Your task to perform on an android device: set the timer Image 0: 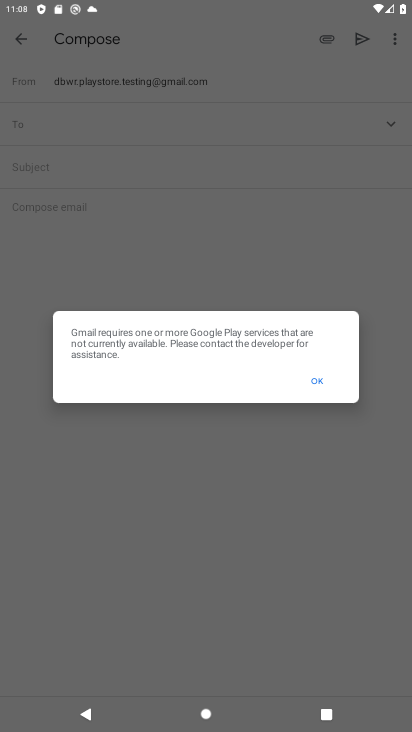
Step 0: press home button
Your task to perform on an android device: set the timer Image 1: 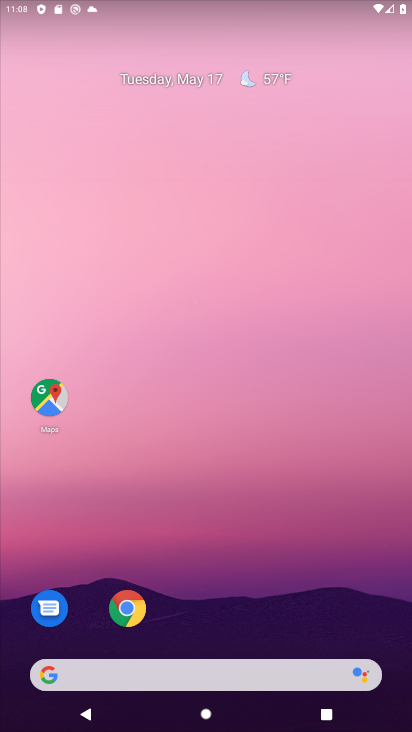
Step 1: drag from (279, 456) to (235, 105)
Your task to perform on an android device: set the timer Image 2: 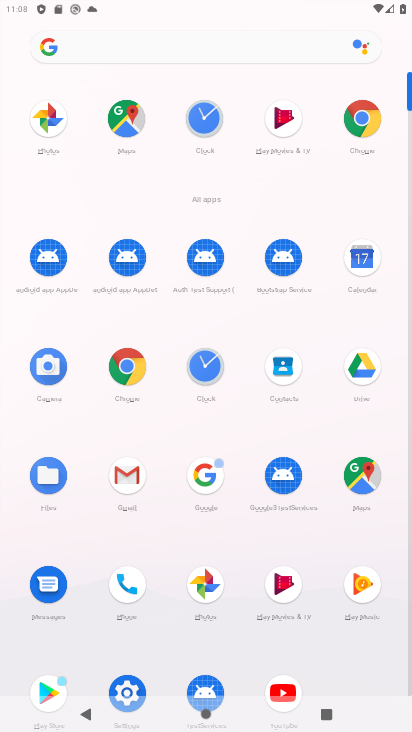
Step 2: click (200, 124)
Your task to perform on an android device: set the timer Image 3: 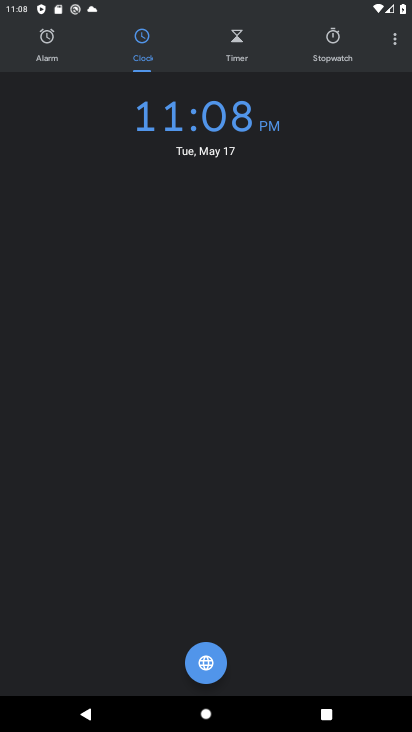
Step 3: click (235, 37)
Your task to perform on an android device: set the timer Image 4: 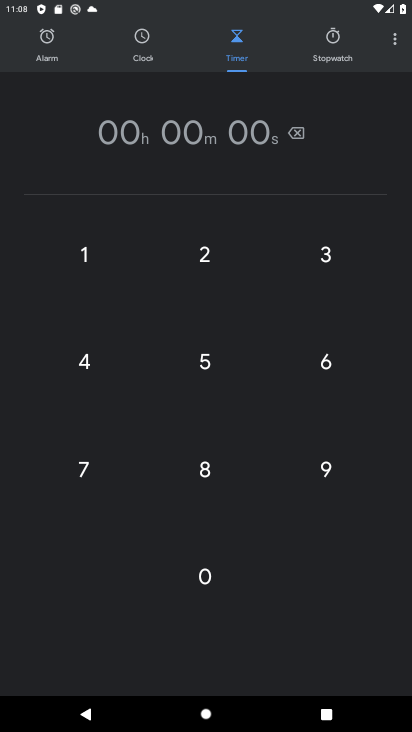
Step 4: click (89, 250)
Your task to perform on an android device: set the timer Image 5: 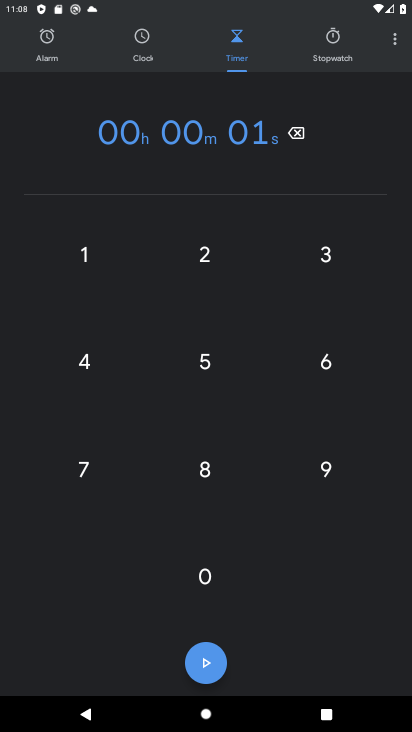
Step 5: click (89, 250)
Your task to perform on an android device: set the timer Image 6: 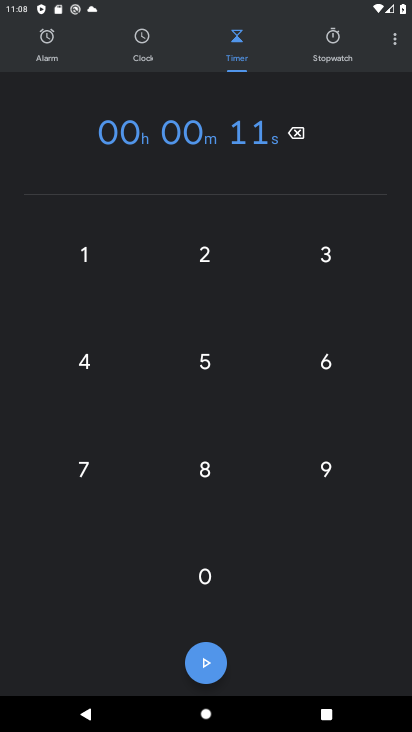
Step 6: click (89, 250)
Your task to perform on an android device: set the timer Image 7: 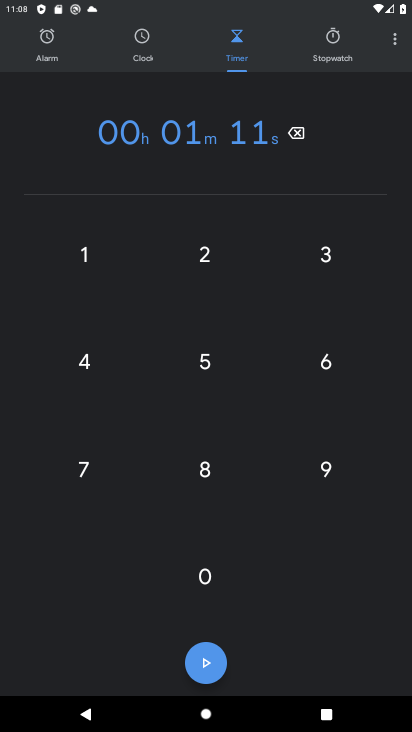
Step 7: click (89, 250)
Your task to perform on an android device: set the timer Image 8: 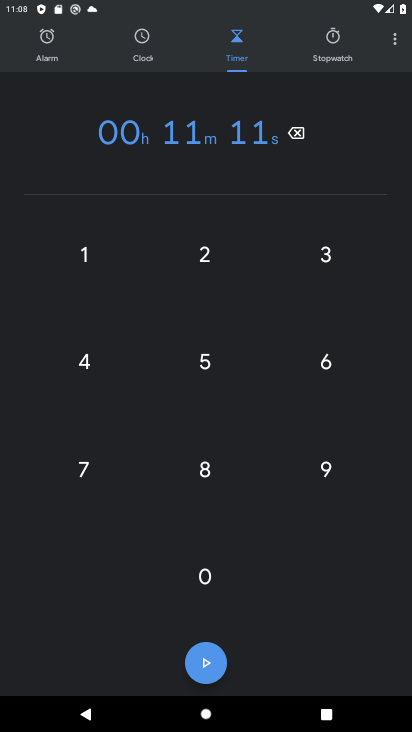
Step 8: click (89, 250)
Your task to perform on an android device: set the timer Image 9: 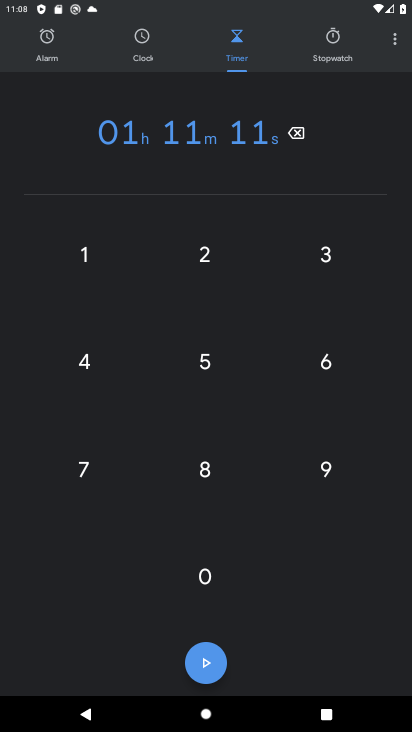
Step 9: task complete